Your task to perform on an android device: turn on sleep mode Image 0: 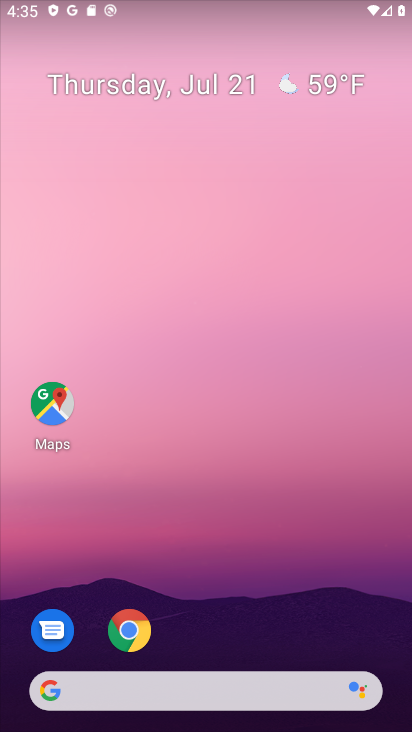
Step 0: click (159, 244)
Your task to perform on an android device: turn on sleep mode Image 1: 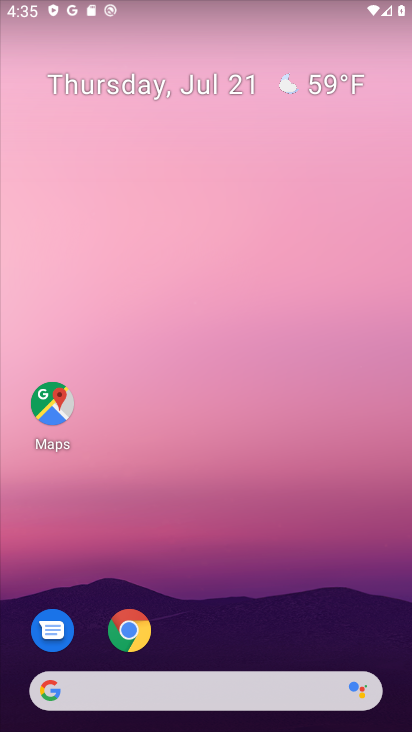
Step 1: drag from (253, 615) to (205, 165)
Your task to perform on an android device: turn on sleep mode Image 2: 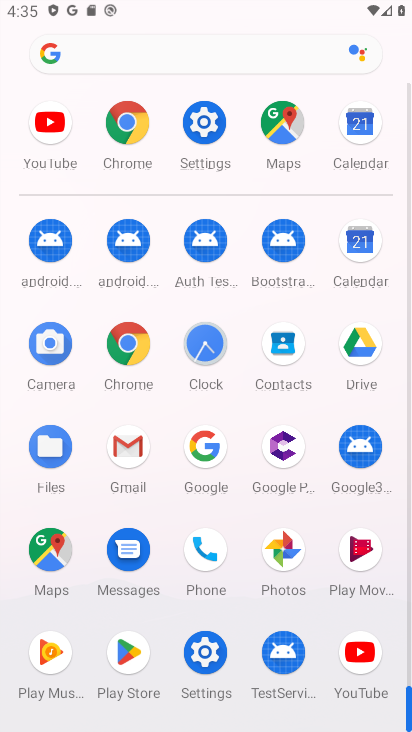
Step 2: click (209, 131)
Your task to perform on an android device: turn on sleep mode Image 3: 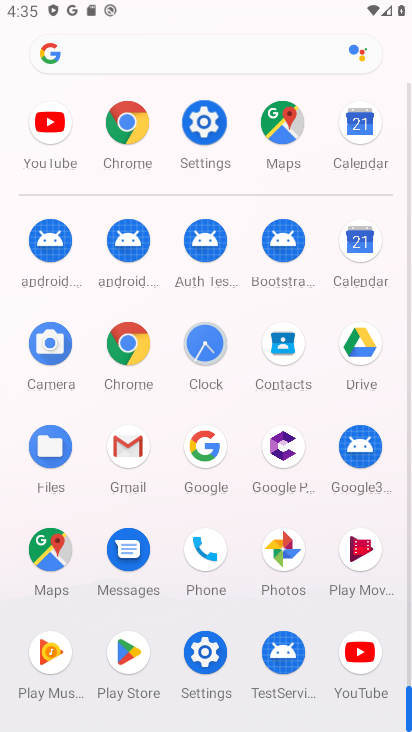
Step 3: click (208, 131)
Your task to perform on an android device: turn on sleep mode Image 4: 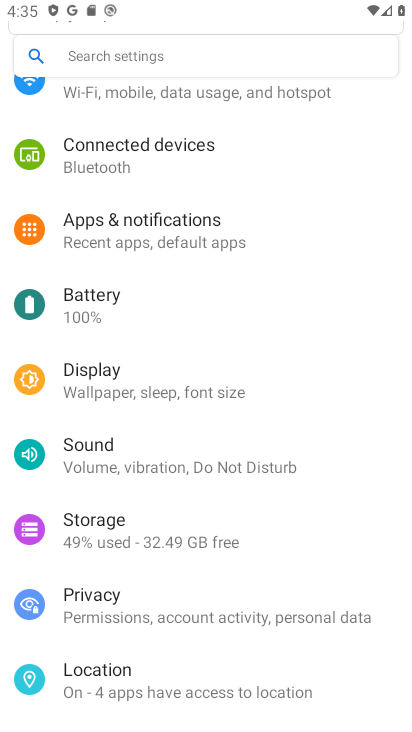
Step 4: drag from (52, 377) to (86, 378)
Your task to perform on an android device: turn on sleep mode Image 5: 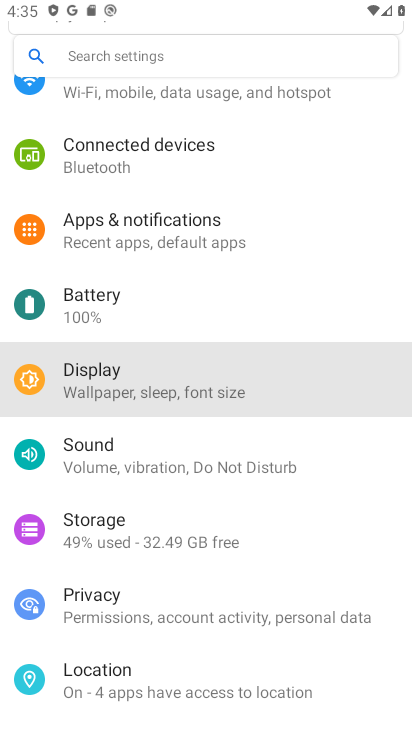
Step 5: click (89, 377)
Your task to perform on an android device: turn on sleep mode Image 6: 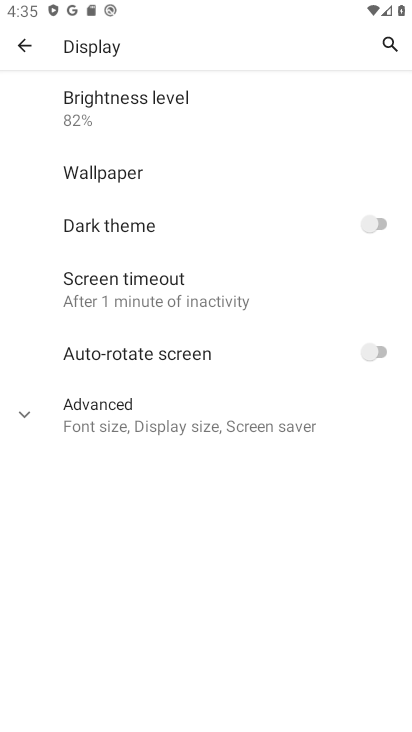
Step 6: task complete